Your task to perform on an android device: Open settings on Google Maps Image 0: 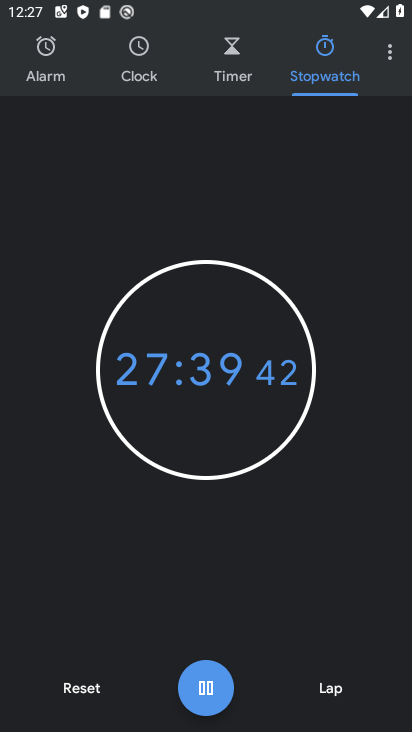
Step 0: press home button
Your task to perform on an android device: Open settings on Google Maps Image 1: 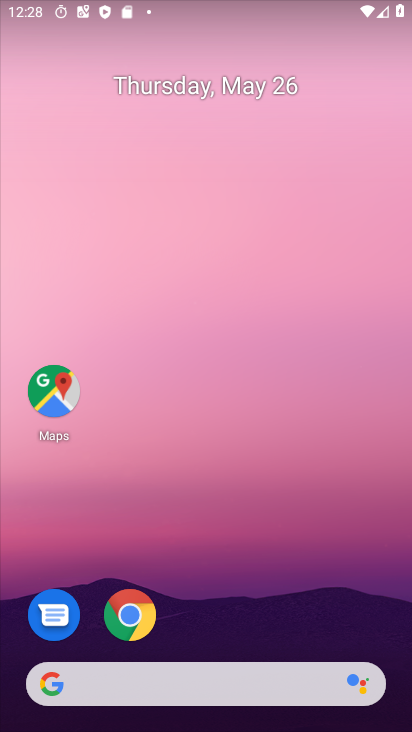
Step 1: drag from (240, 617) to (186, 147)
Your task to perform on an android device: Open settings on Google Maps Image 2: 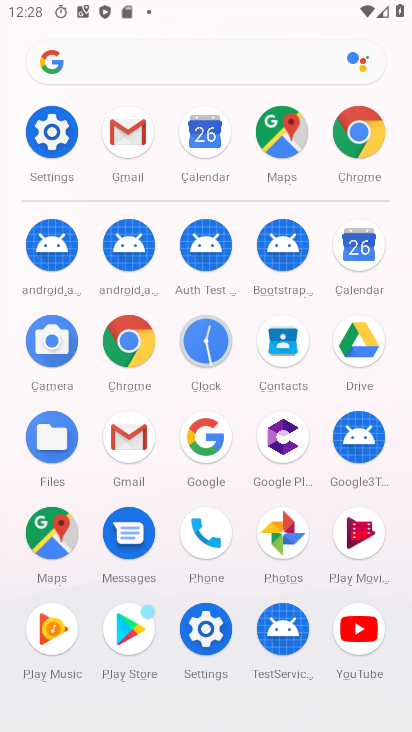
Step 2: click (293, 136)
Your task to perform on an android device: Open settings on Google Maps Image 3: 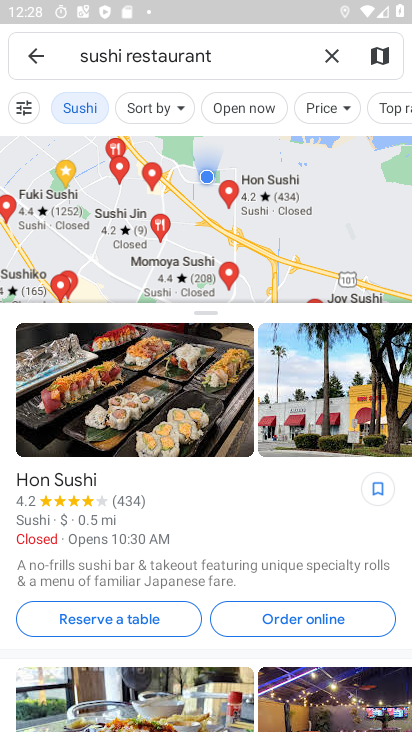
Step 3: click (27, 56)
Your task to perform on an android device: Open settings on Google Maps Image 4: 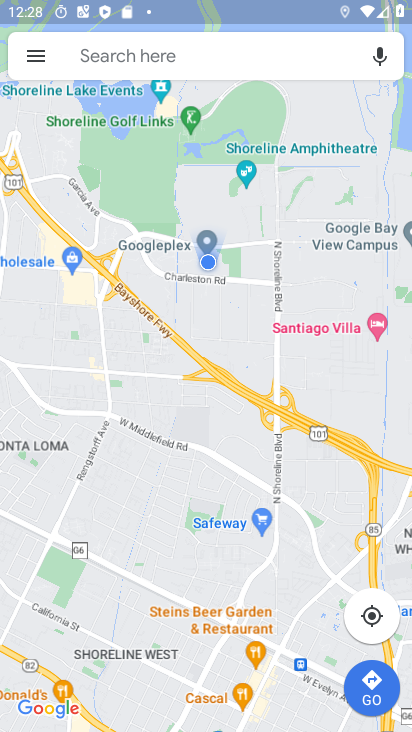
Step 4: click (27, 56)
Your task to perform on an android device: Open settings on Google Maps Image 5: 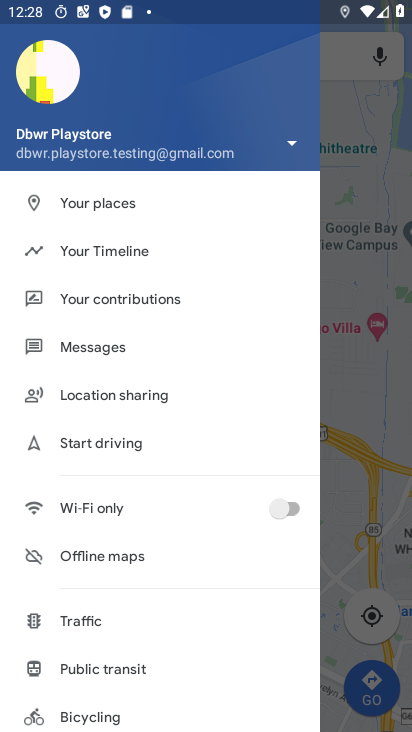
Step 5: drag from (141, 701) to (109, 335)
Your task to perform on an android device: Open settings on Google Maps Image 6: 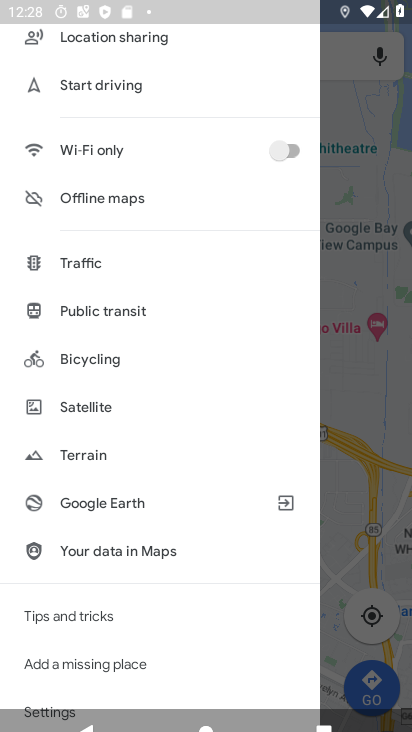
Step 6: drag from (120, 621) to (109, 408)
Your task to perform on an android device: Open settings on Google Maps Image 7: 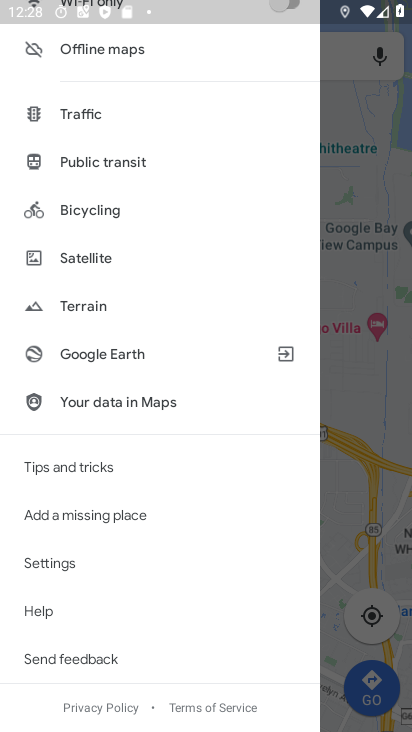
Step 7: click (77, 562)
Your task to perform on an android device: Open settings on Google Maps Image 8: 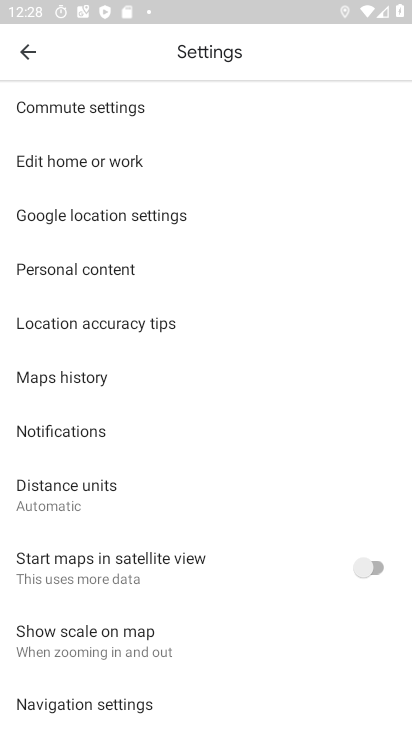
Step 8: task complete